Your task to perform on an android device: Show me the alarms in the clock app Image 0: 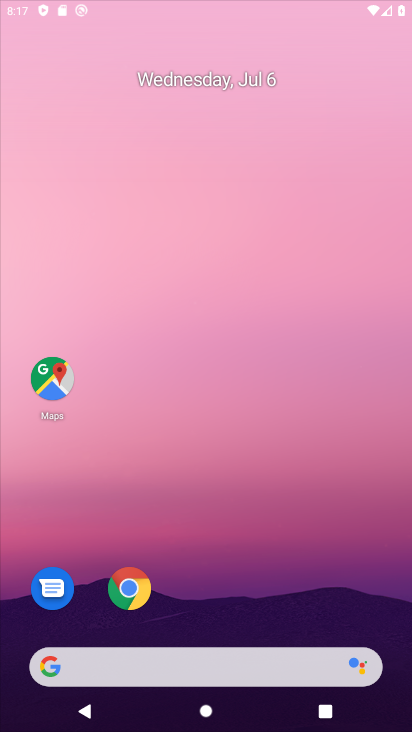
Step 0: drag from (187, 619) to (183, 337)
Your task to perform on an android device: Show me the alarms in the clock app Image 1: 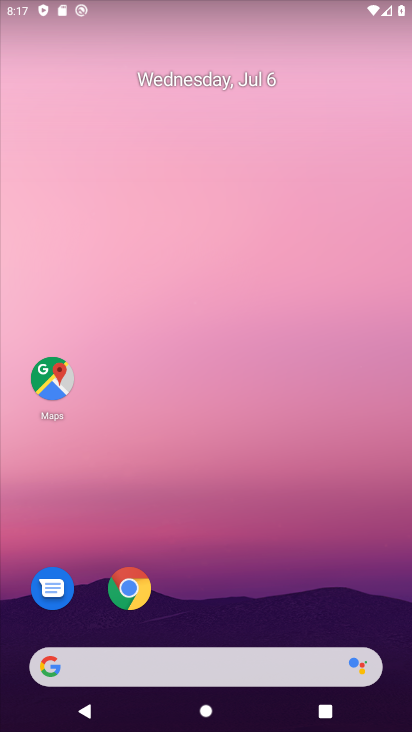
Step 1: drag from (234, 634) to (232, 369)
Your task to perform on an android device: Show me the alarms in the clock app Image 2: 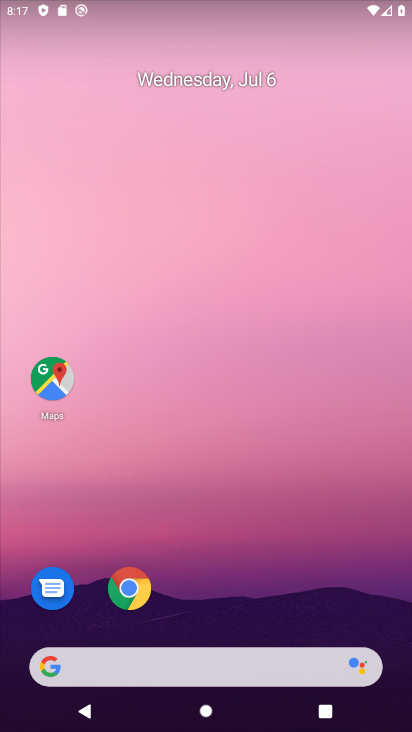
Step 2: drag from (248, 648) to (250, 216)
Your task to perform on an android device: Show me the alarms in the clock app Image 3: 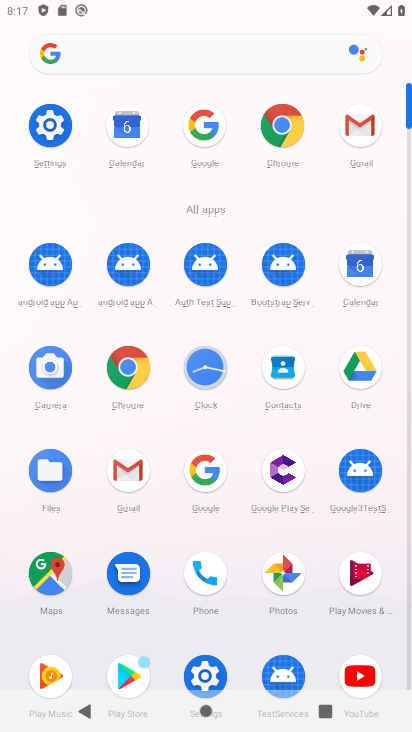
Step 3: click (209, 364)
Your task to perform on an android device: Show me the alarms in the clock app Image 4: 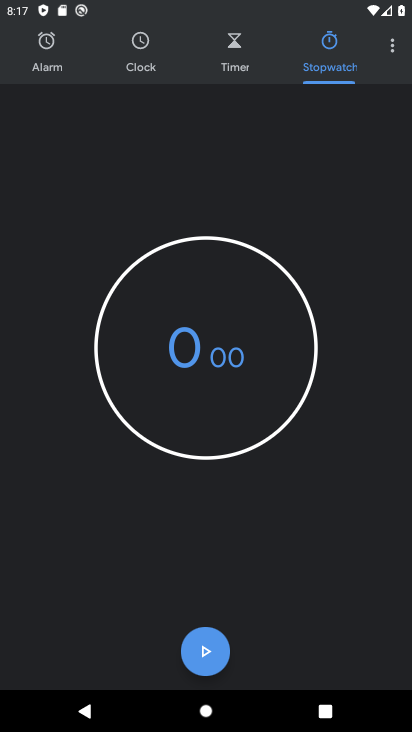
Step 4: click (50, 47)
Your task to perform on an android device: Show me the alarms in the clock app Image 5: 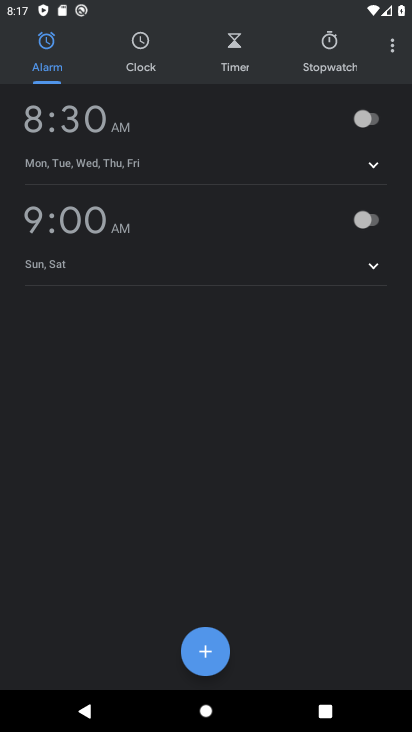
Step 5: click (217, 121)
Your task to perform on an android device: Show me the alarms in the clock app Image 6: 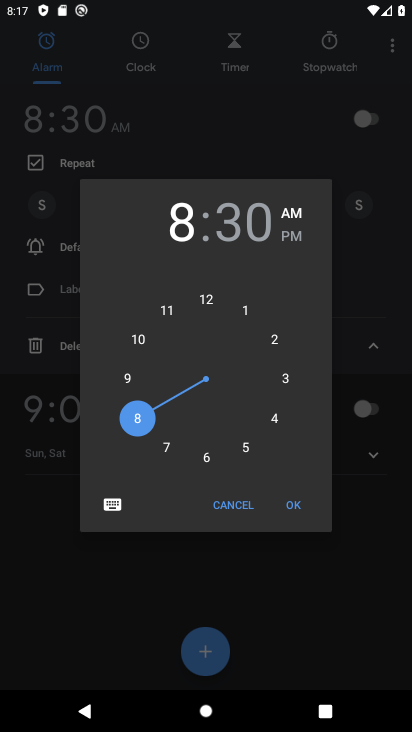
Step 6: click (275, 505)
Your task to perform on an android device: Show me the alarms in the clock app Image 7: 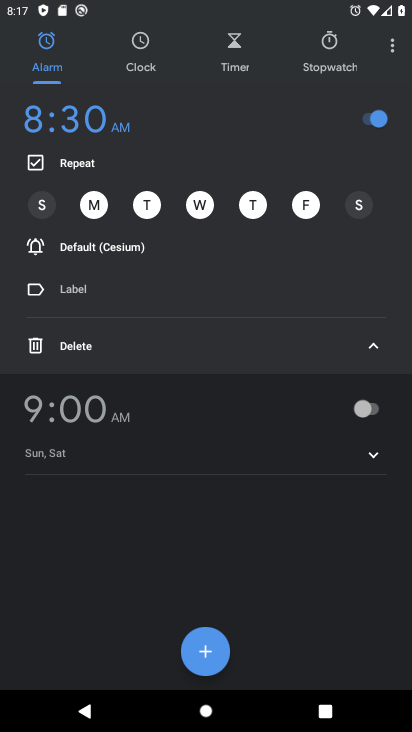
Step 7: task complete